Your task to perform on an android device: toggle sleep mode Image 0: 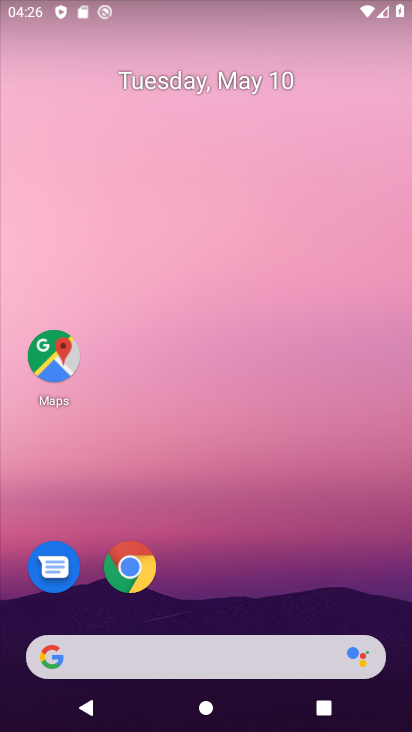
Step 0: drag from (246, 605) to (350, 31)
Your task to perform on an android device: toggle sleep mode Image 1: 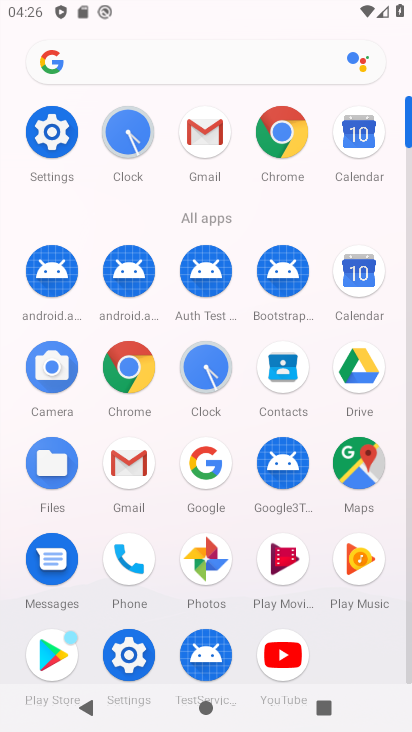
Step 1: click (72, 133)
Your task to perform on an android device: toggle sleep mode Image 2: 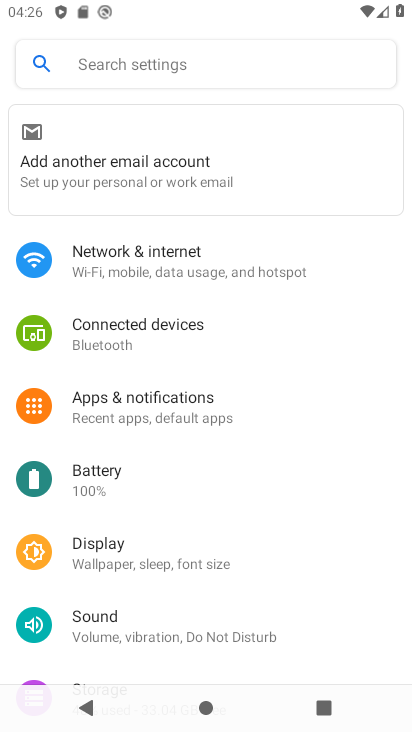
Step 2: click (175, 553)
Your task to perform on an android device: toggle sleep mode Image 3: 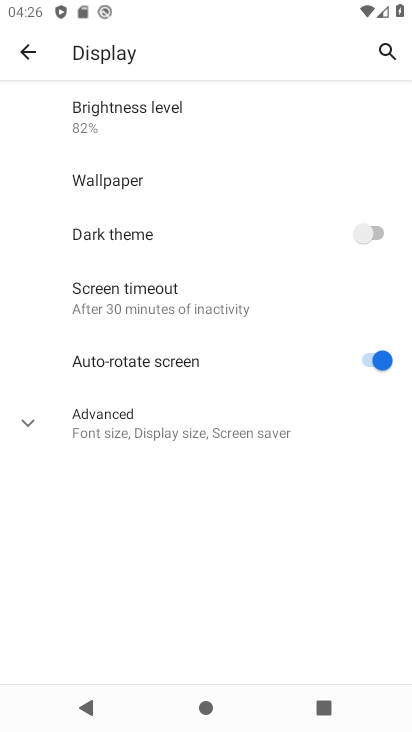
Step 3: click (140, 419)
Your task to perform on an android device: toggle sleep mode Image 4: 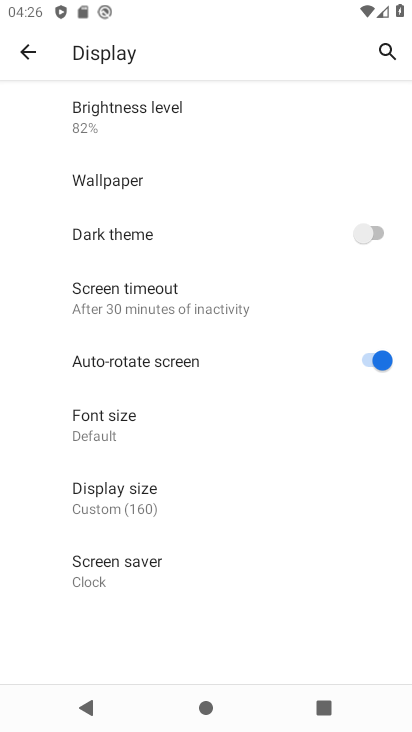
Step 4: click (34, 55)
Your task to perform on an android device: toggle sleep mode Image 5: 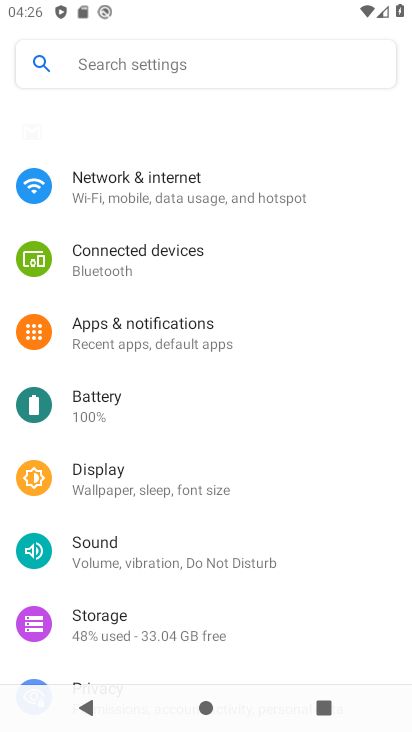
Step 5: task complete